Your task to perform on an android device: Clear all items from cart on newegg. Add sony triple a to the cart on newegg, then select checkout. Image 0: 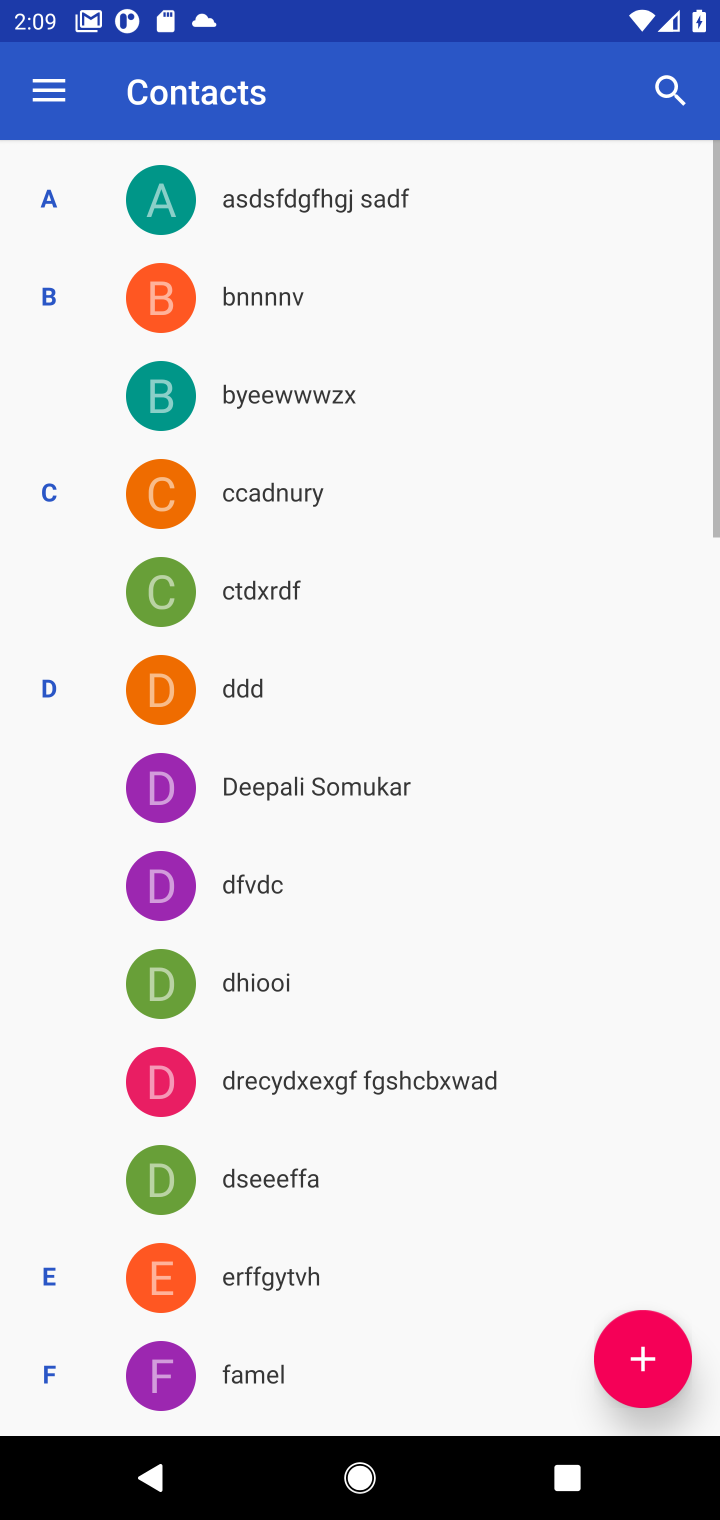
Step 0: press home button
Your task to perform on an android device: Clear all items from cart on newegg. Add sony triple a to the cart on newegg, then select checkout. Image 1: 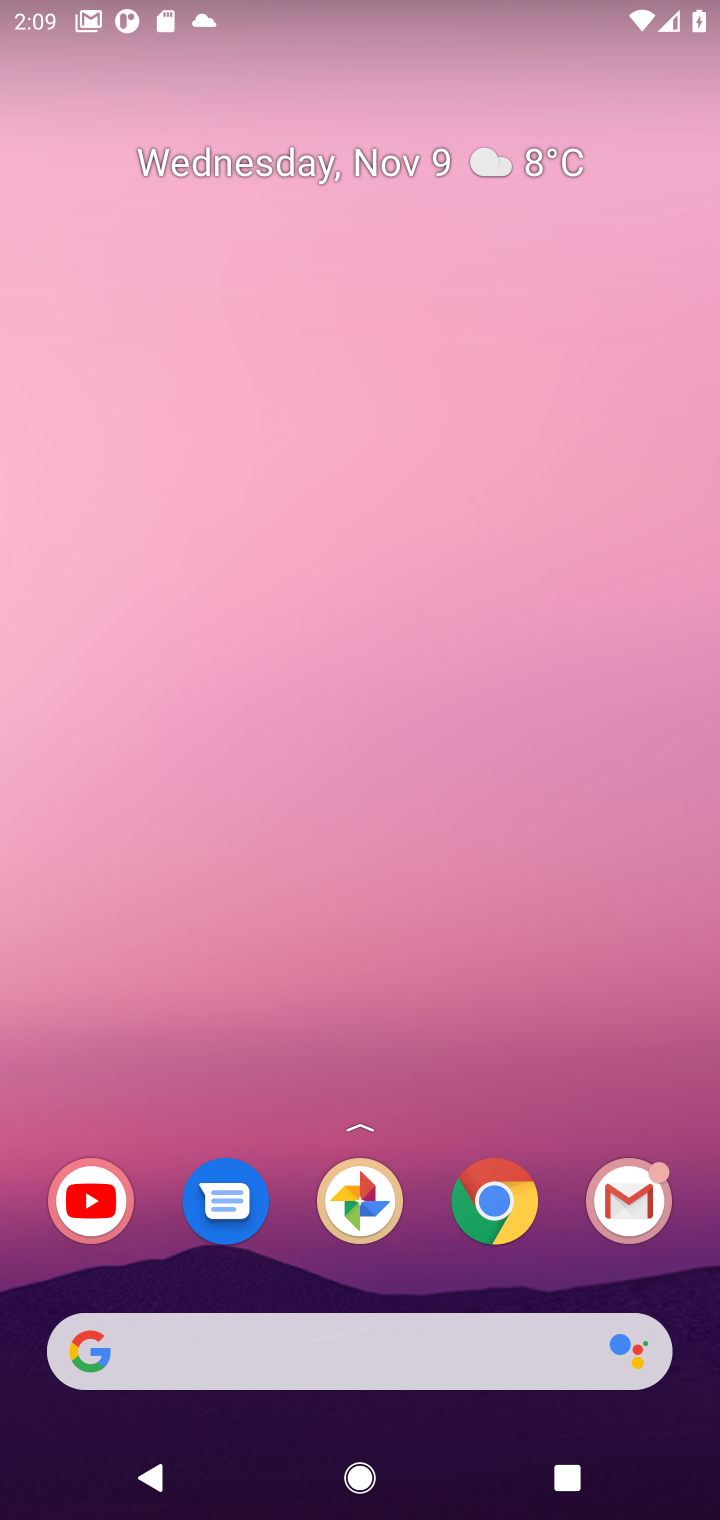
Step 1: click (338, 1345)
Your task to perform on an android device: Clear all items from cart on newegg. Add sony triple a to the cart on newegg, then select checkout. Image 2: 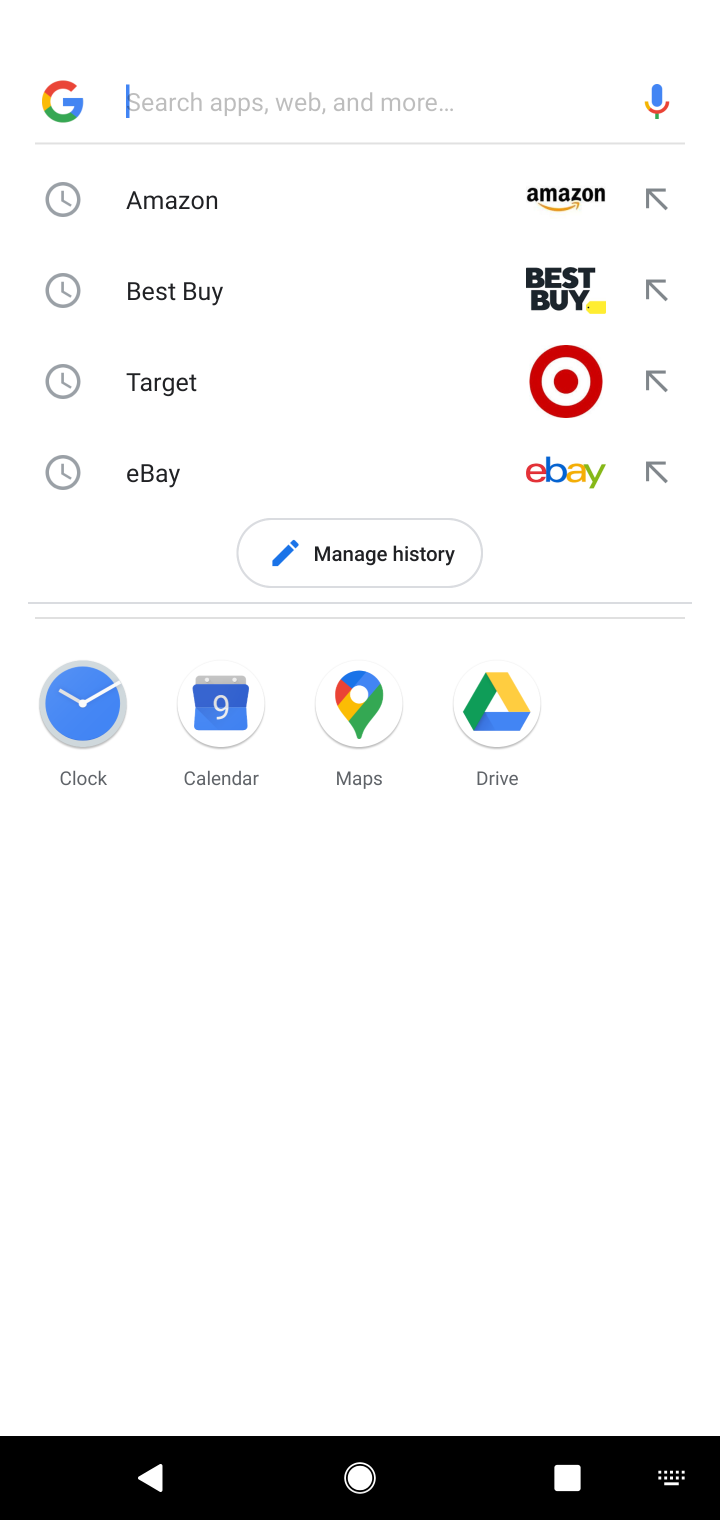
Step 2: type "newegg"
Your task to perform on an android device: Clear all items from cart on newegg. Add sony triple a to the cart on newegg, then select checkout. Image 3: 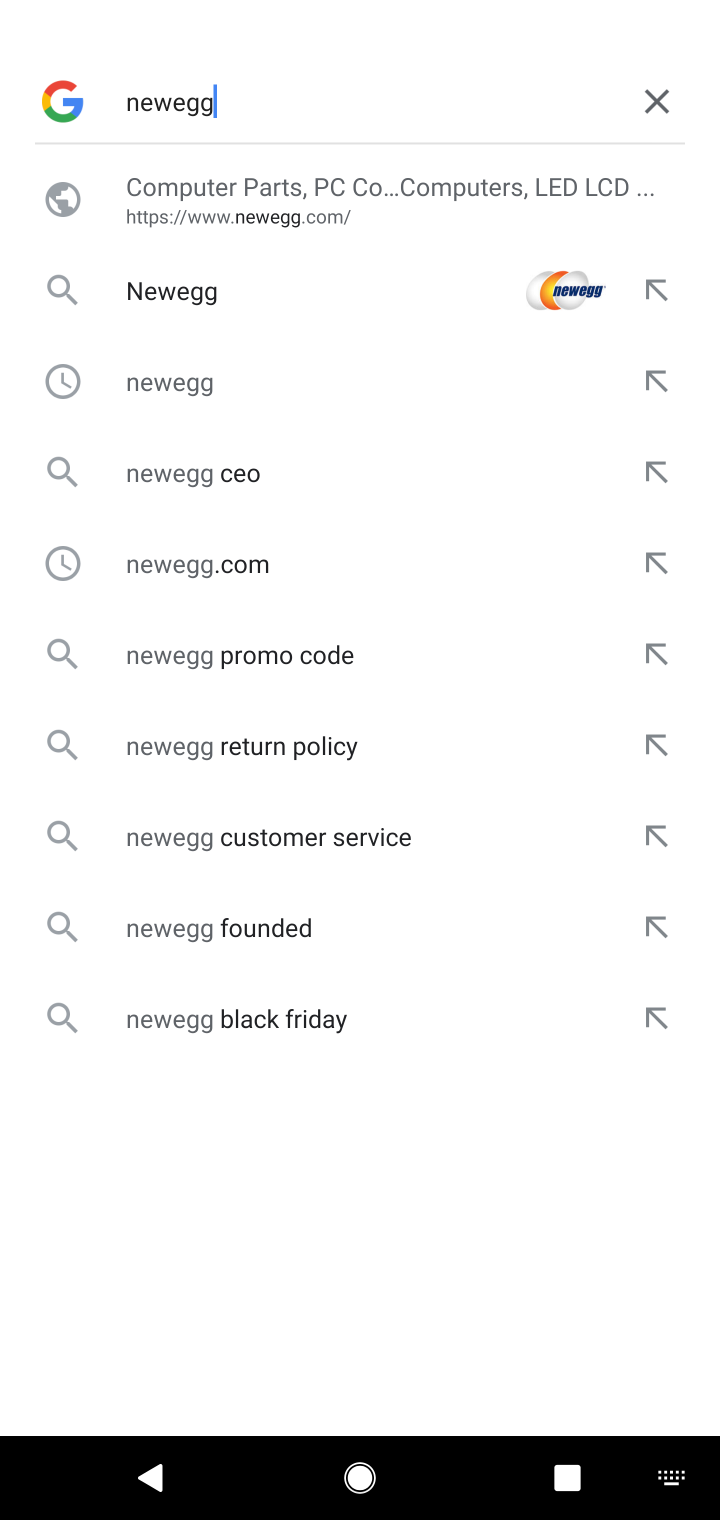
Step 3: click (256, 294)
Your task to perform on an android device: Clear all items from cart on newegg. Add sony triple a to the cart on newegg, then select checkout. Image 4: 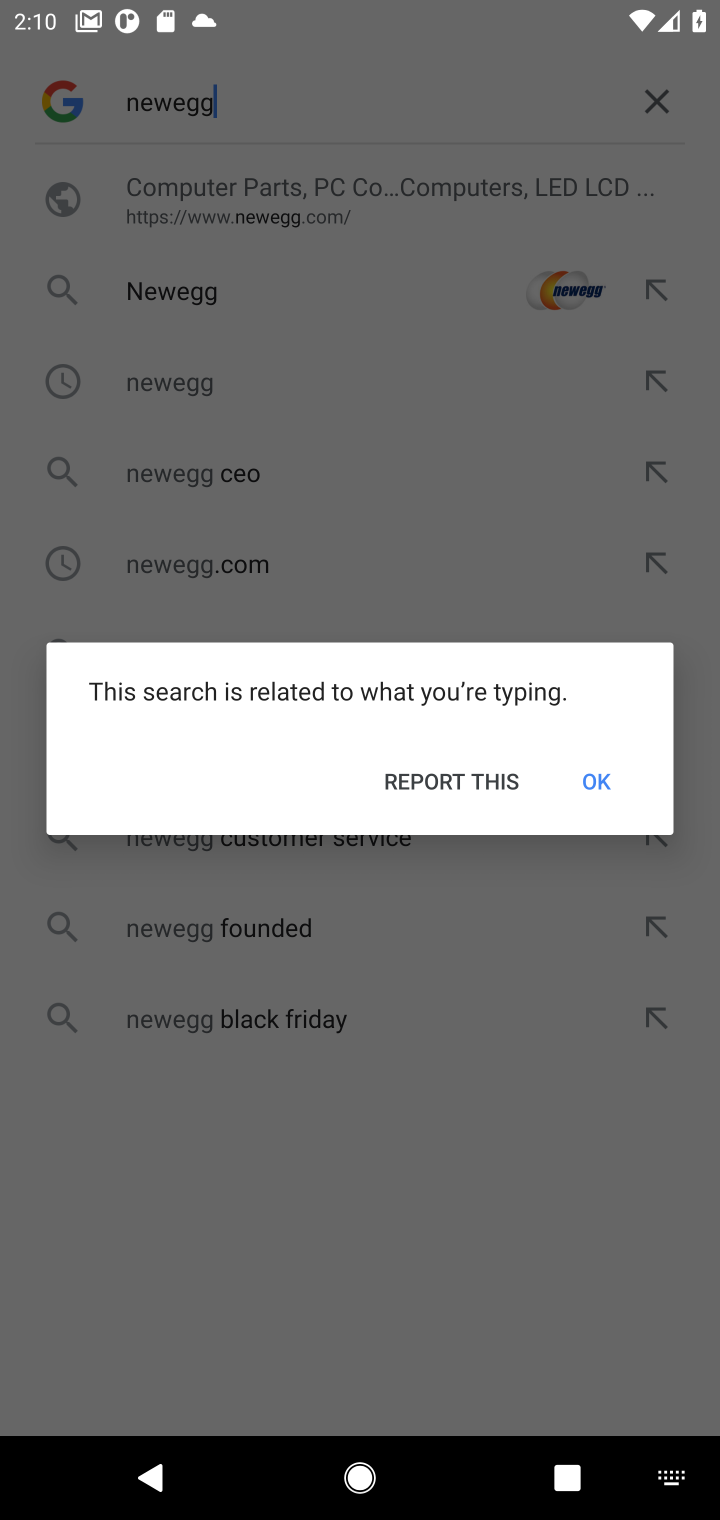
Step 4: click (359, 307)
Your task to perform on an android device: Clear all items from cart on newegg. Add sony triple a to the cart on newegg, then select checkout. Image 5: 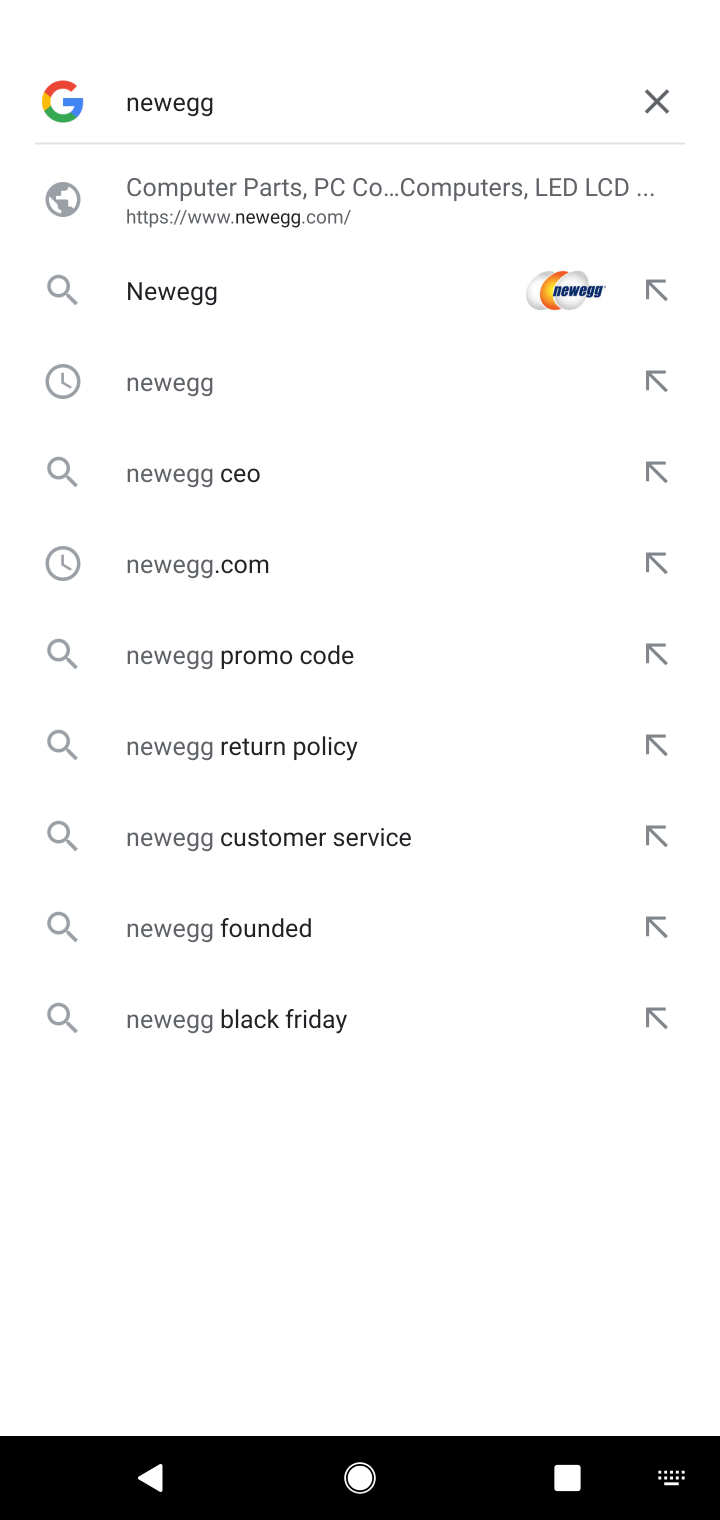
Step 5: click (300, 295)
Your task to perform on an android device: Clear all items from cart on newegg. Add sony triple a to the cart on newegg, then select checkout. Image 6: 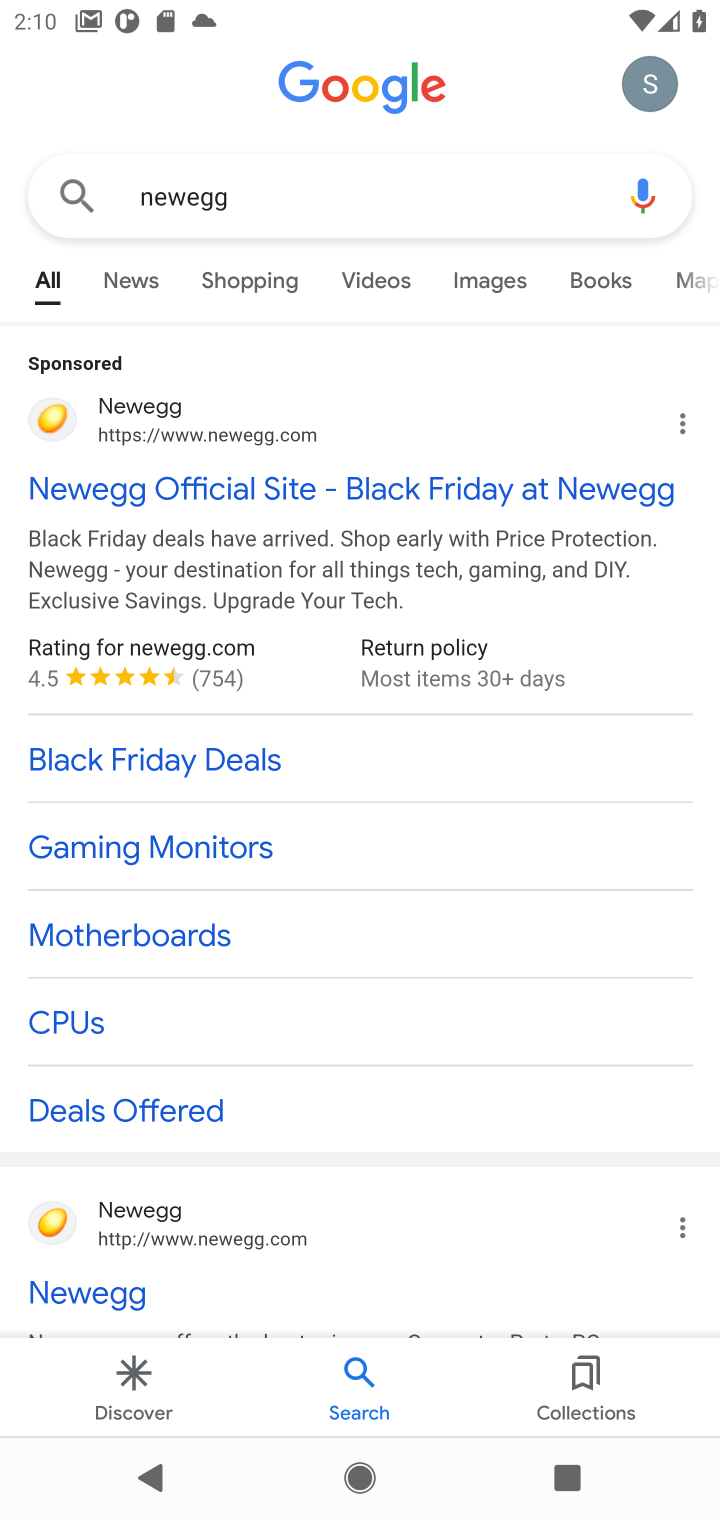
Step 6: click (142, 410)
Your task to perform on an android device: Clear all items from cart on newegg. Add sony triple a to the cart on newegg, then select checkout. Image 7: 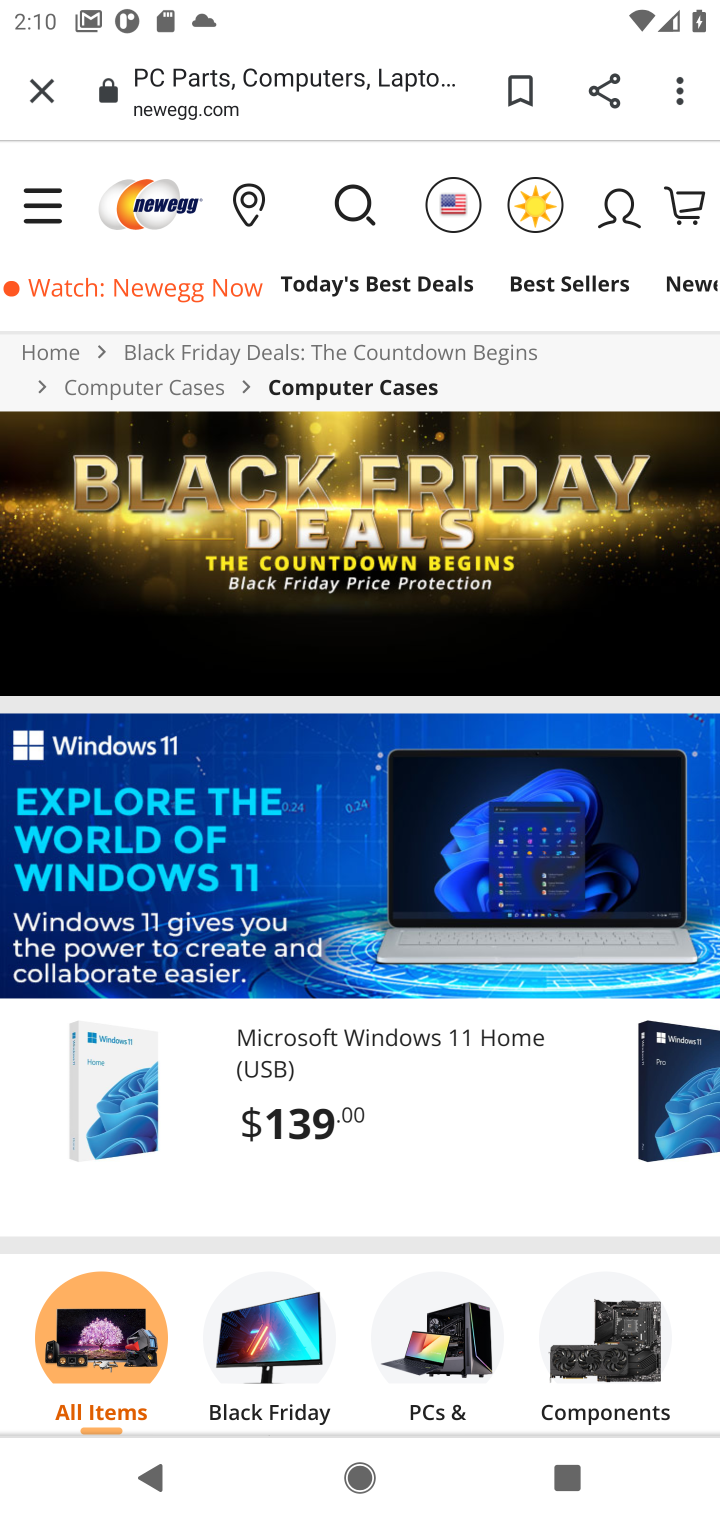
Step 7: click (458, 207)
Your task to perform on an android device: Clear all items from cart on newegg. Add sony triple a to the cart on newegg, then select checkout. Image 8: 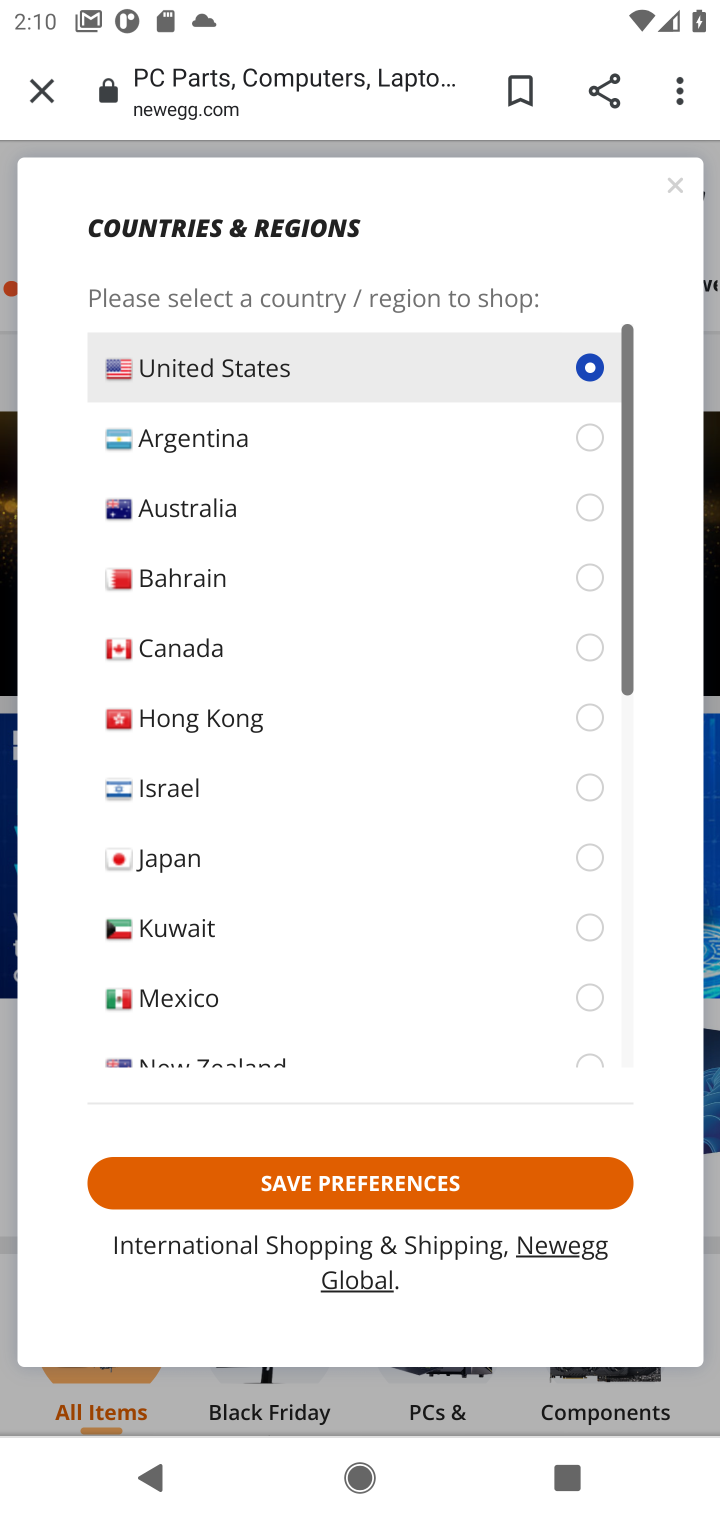
Step 8: press back button
Your task to perform on an android device: Clear all items from cart on newegg. Add sony triple a to the cart on newegg, then select checkout. Image 9: 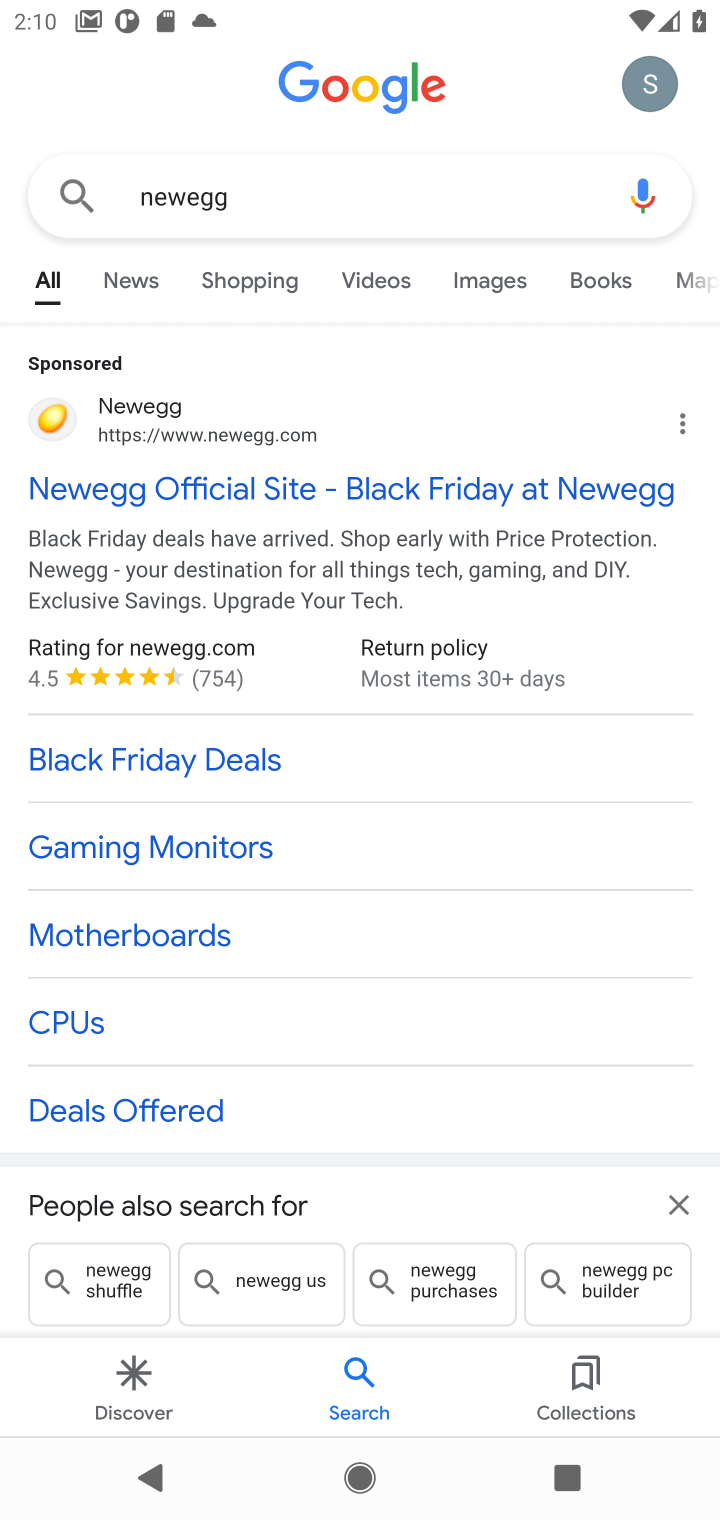
Step 9: click (131, 406)
Your task to perform on an android device: Clear all items from cart on newegg. Add sony triple a to the cart on newegg, then select checkout. Image 10: 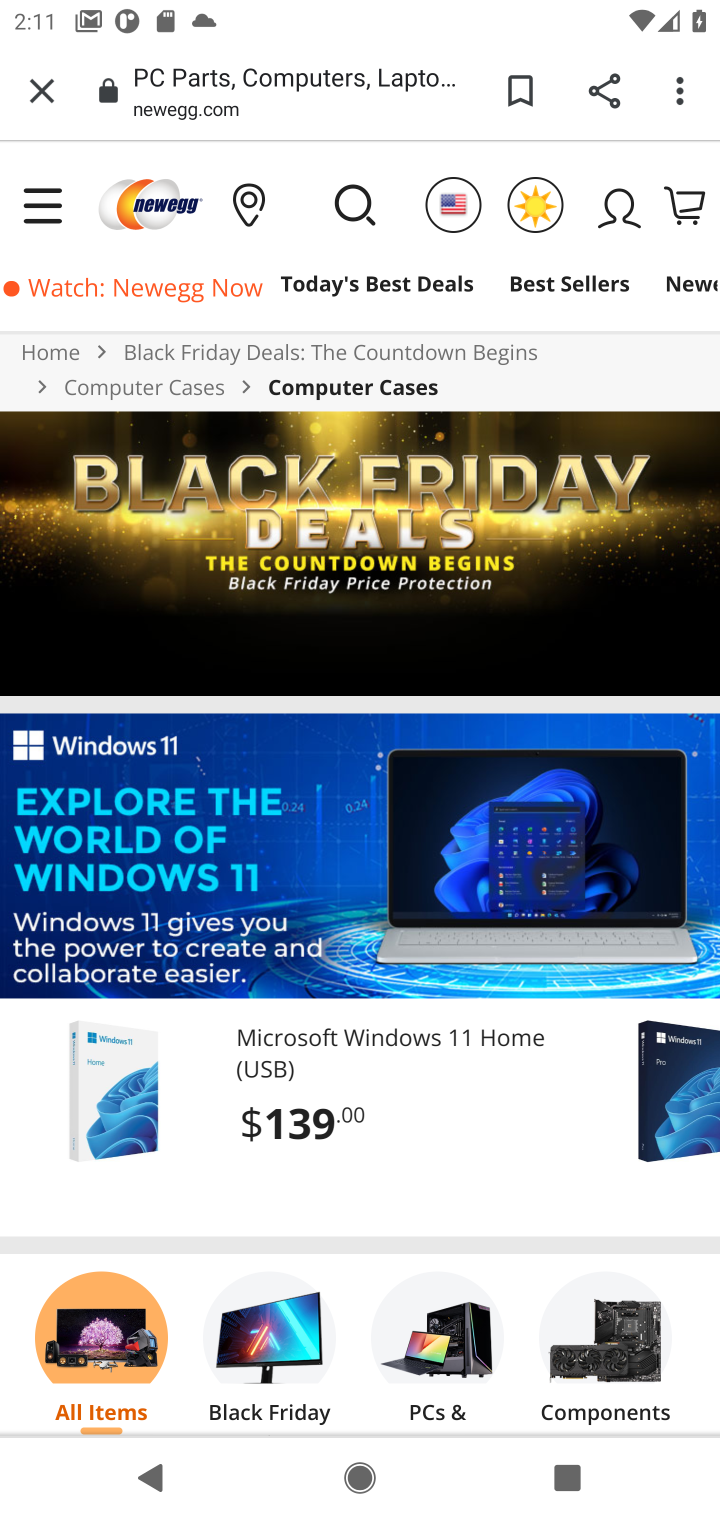
Step 10: click (372, 202)
Your task to perform on an android device: Clear all items from cart on newegg. Add sony triple a to the cart on newegg, then select checkout. Image 11: 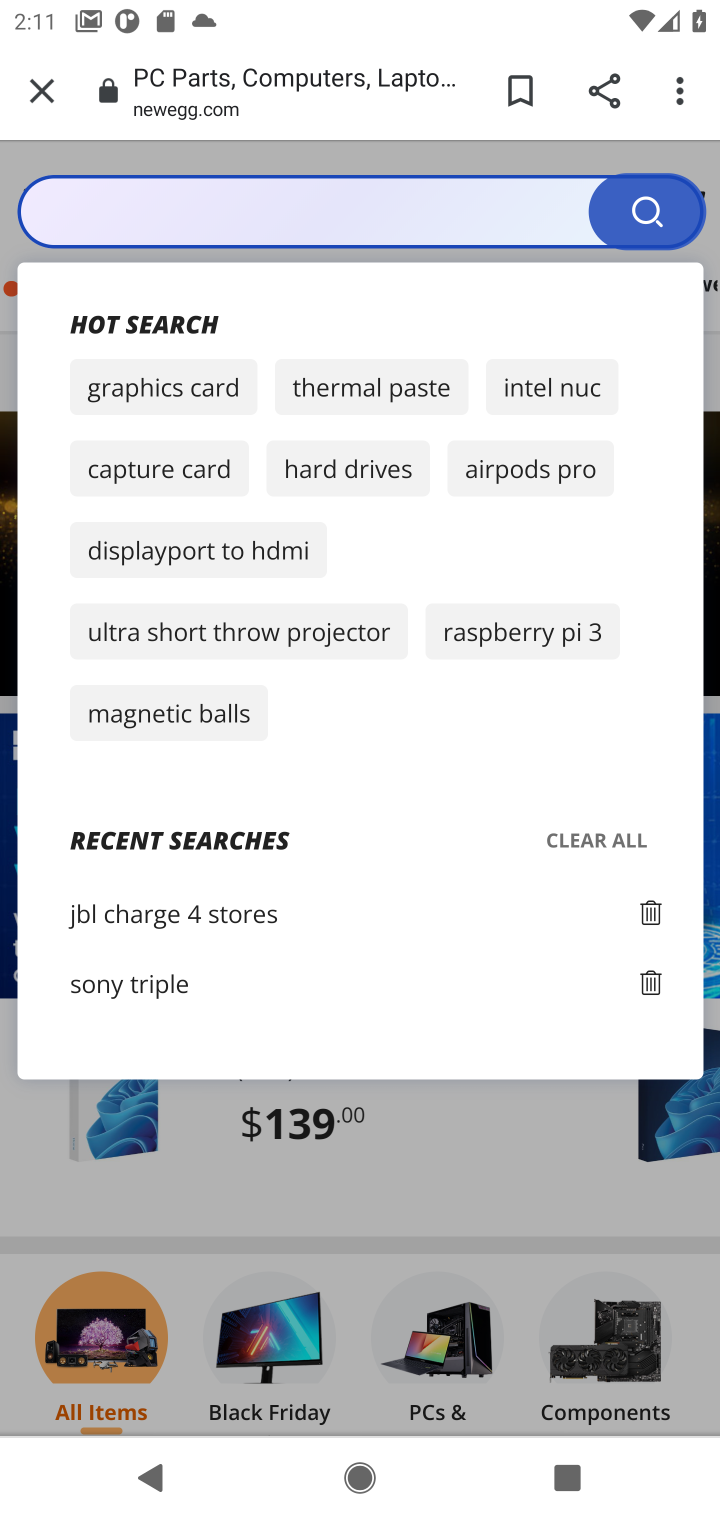
Step 11: click (349, 202)
Your task to perform on an android device: Clear all items from cart on newegg. Add sony triple a to the cart on newegg, then select checkout. Image 12: 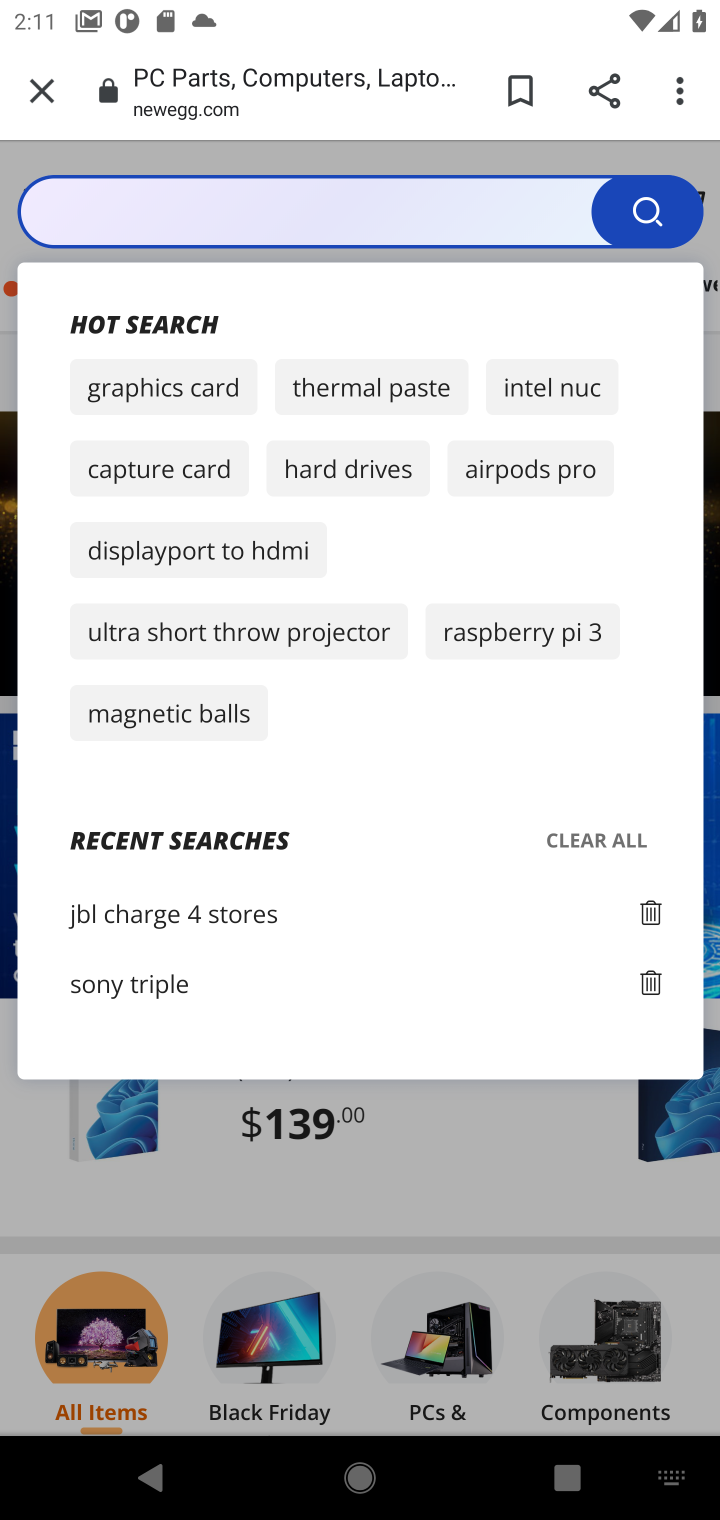
Step 12: click (360, 202)
Your task to perform on an android device: Clear all items from cart on newegg. Add sony triple a to the cart on newegg, then select checkout. Image 13: 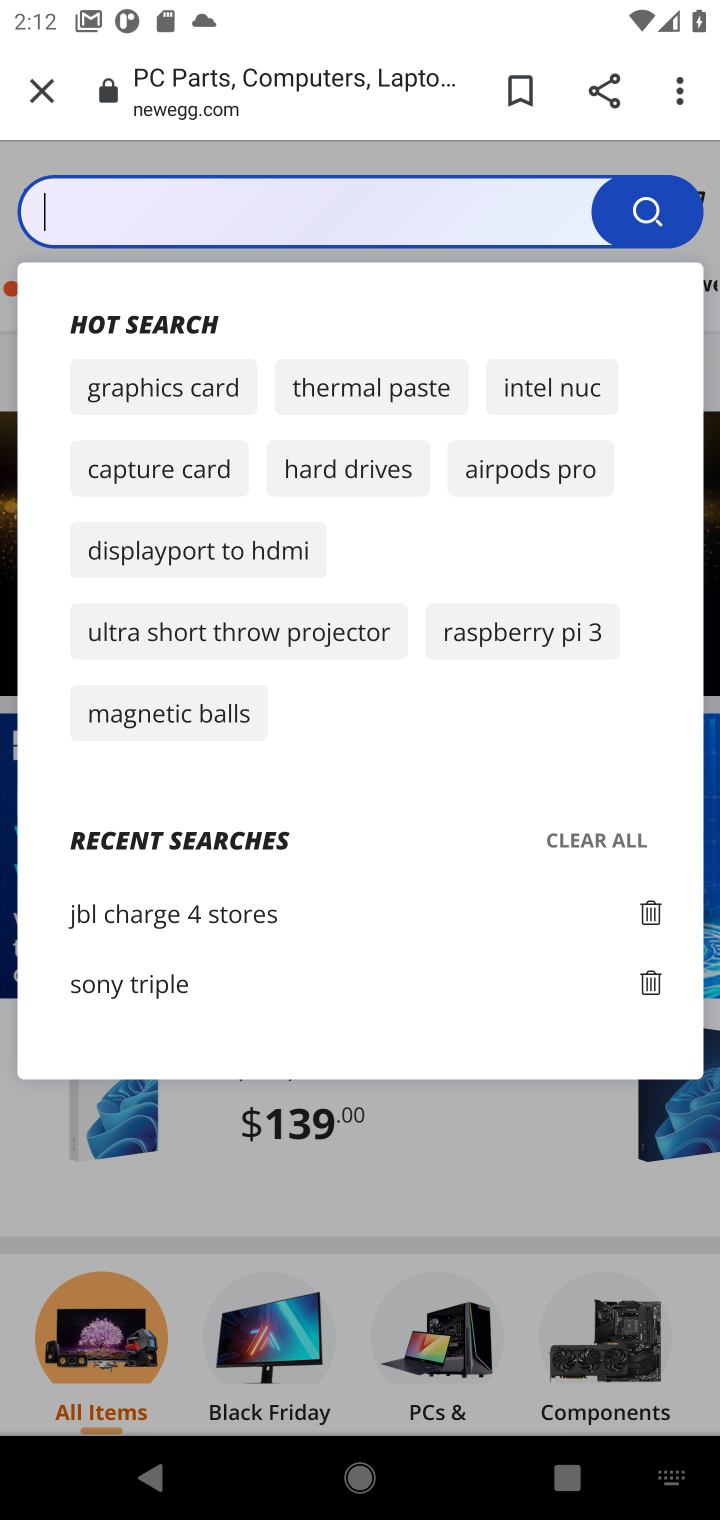
Step 13: type "sony triple a"
Your task to perform on an android device: Clear all items from cart on newegg. Add sony triple a to the cart on newegg, then select checkout. Image 14: 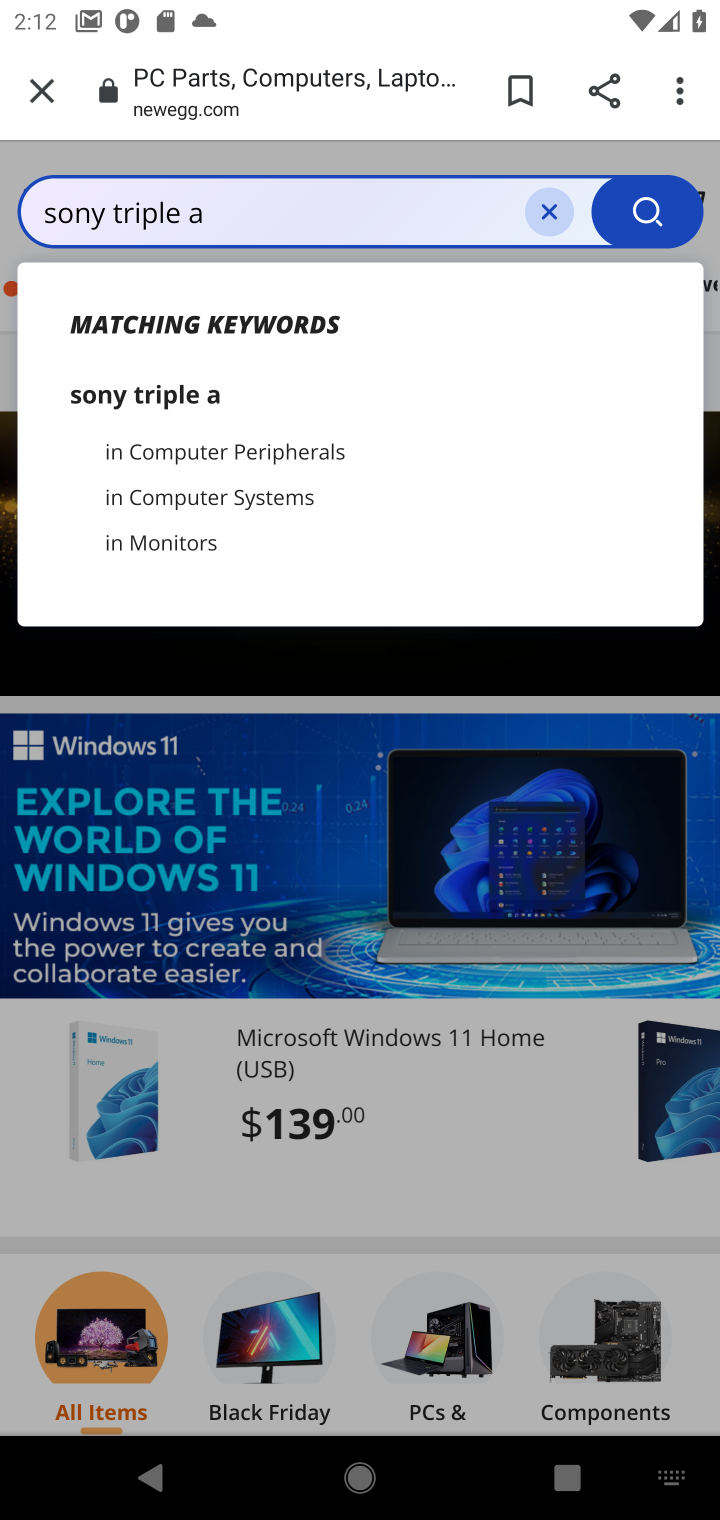
Step 14: click (191, 402)
Your task to perform on an android device: Clear all items from cart on newegg. Add sony triple a to the cart on newegg, then select checkout. Image 15: 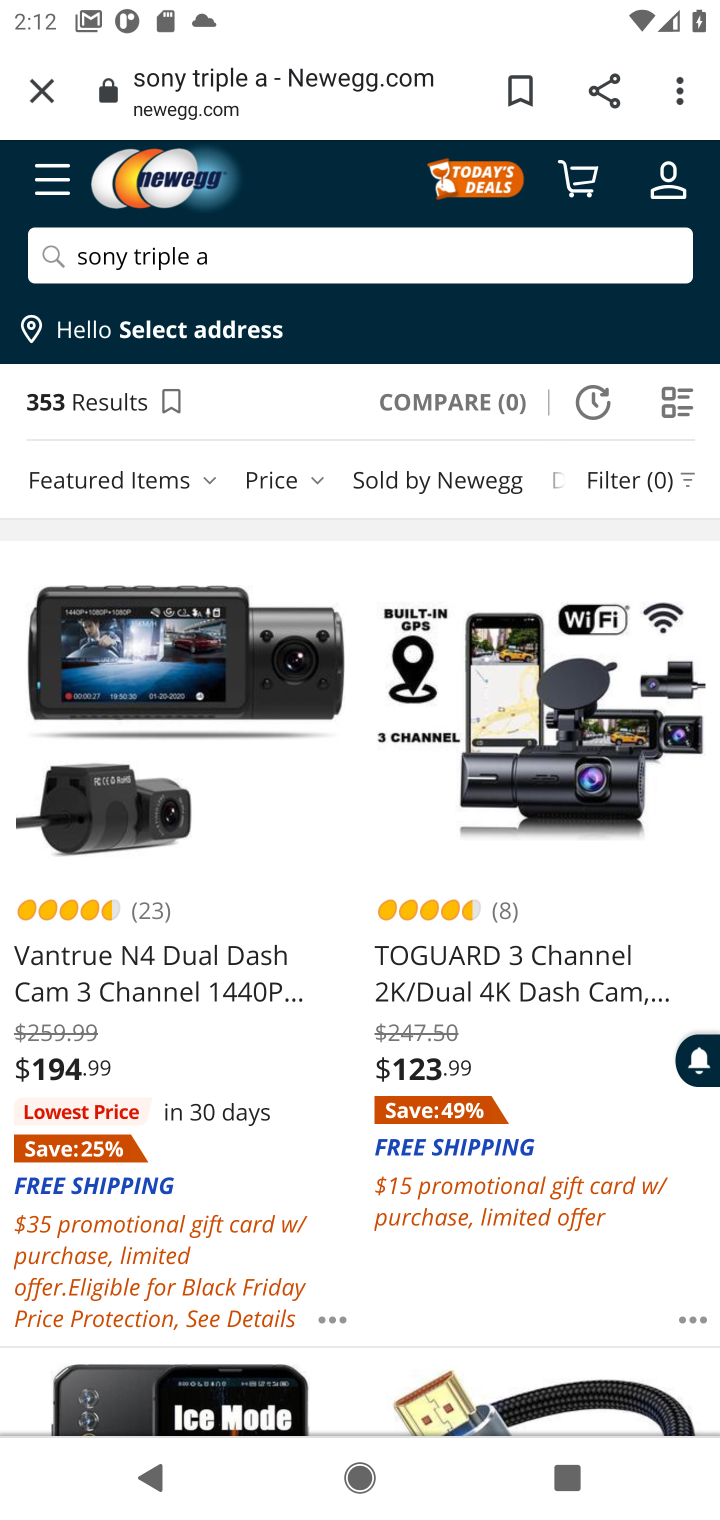
Step 15: click (194, 814)
Your task to perform on an android device: Clear all items from cart on newegg. Add sony triple a to the cart on newegg, then select checkout. Image 16: 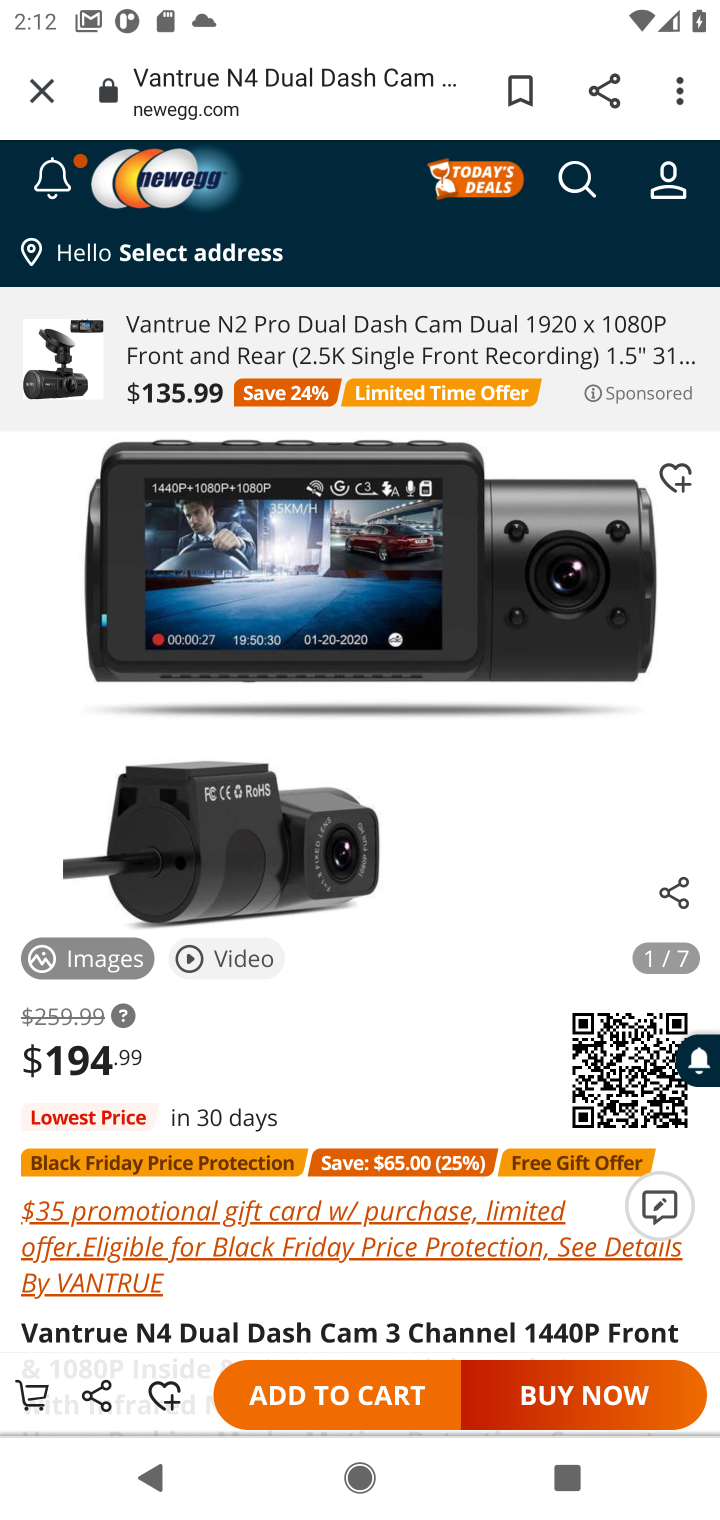
Step 16: click (326, 1402)
Your task to perform on an android device: Clear all items from cart on newegg. Add sony triple a to the cart on newegg, then select checkout. Image 17: 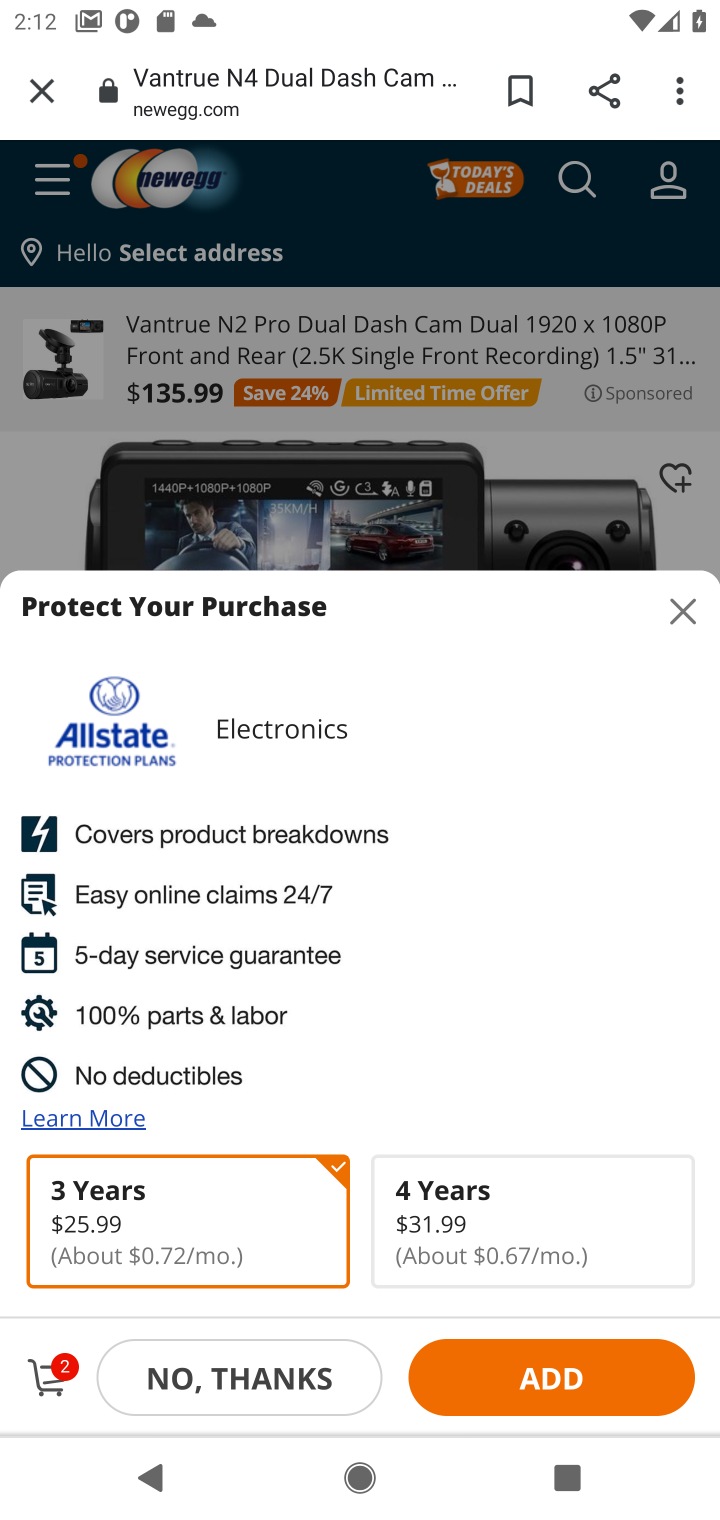
Step 17: click (264, 1373)
Your task to perform on an android device: Clear all items from cart on newegg. Add sony triple a to the cart on newegg, then select checkout. Image 18: 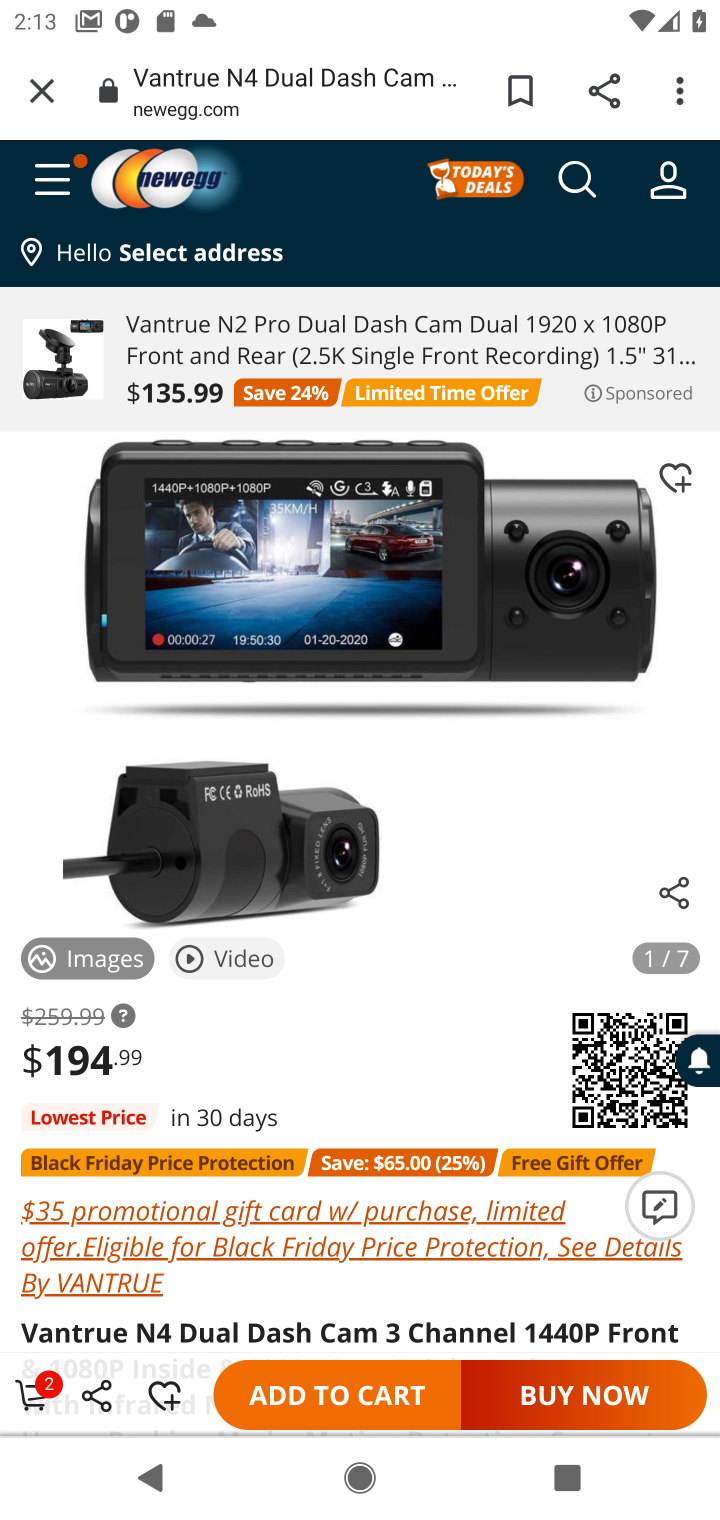
Step 18: task complete